Your task to perform on an android device: Go to location settings Image 0: 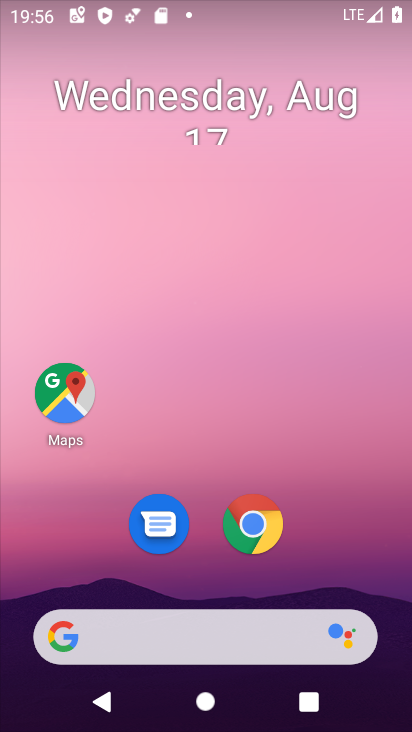
Step 0: drag from (311, 535) to (294, 10)
Your task to perform on an android device: Go to location settings Image 1: 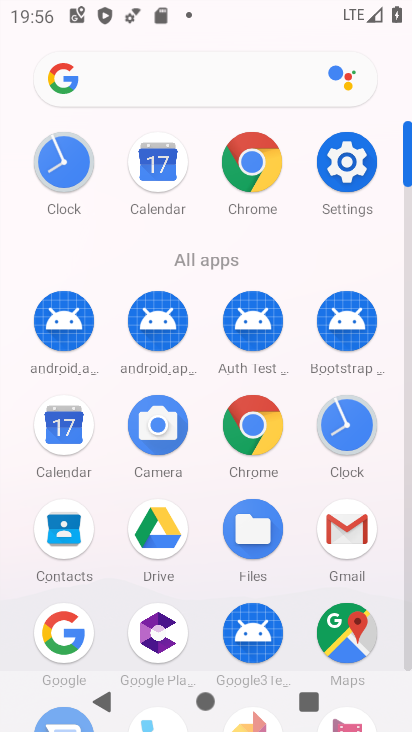
Step 1: click (343, 162)
Your task to perform on an android device: Go to location settings Image 2: 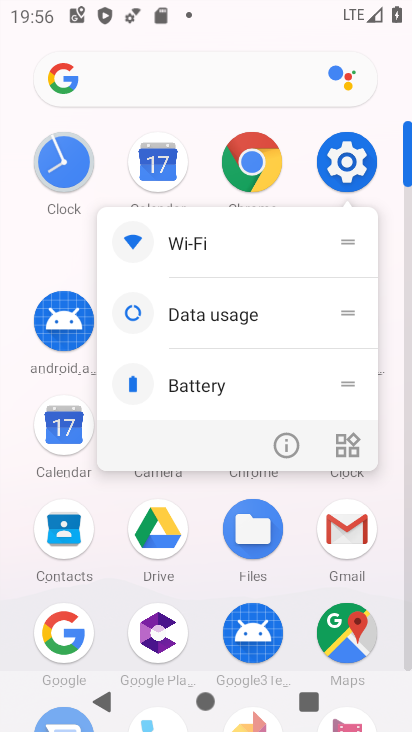
Step 2: click (350, 155)
Your task to perform on an android device: Go to location settings Image 3: 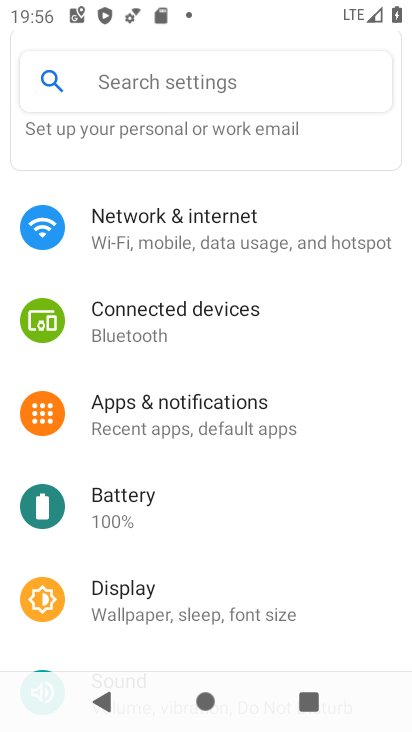
Step 3: drag from (223, 552) to (241, 113)
Your task to perform on an android device: Go to location settings Image 4: 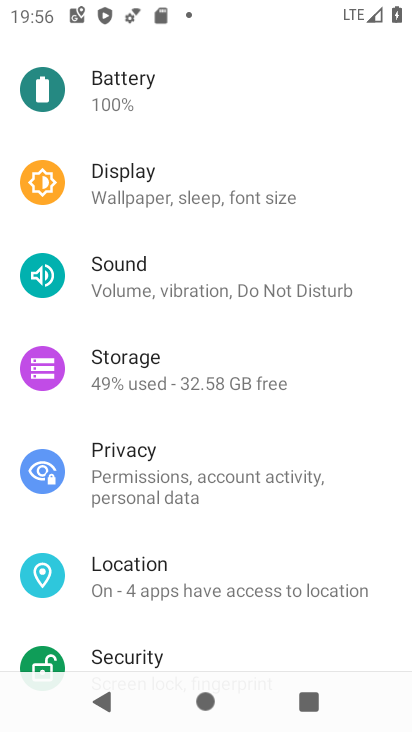
Step 4: click (214, 570)
Your task to perform on an android device: Go to location settings Image 5: 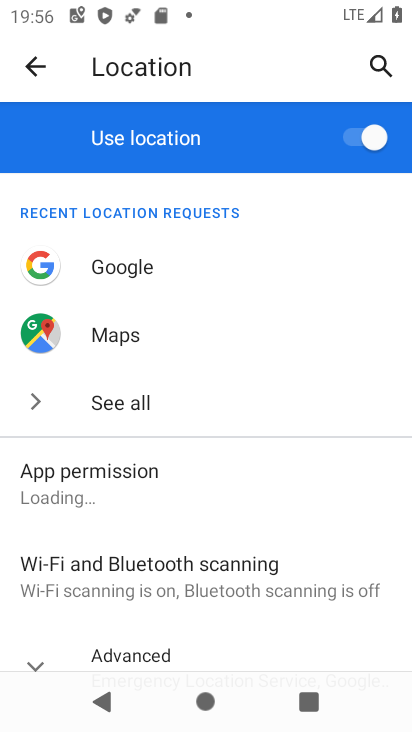
Step 5: task complete